Your task to perform on an android device: see sites visited before in the chrome app Image 0: 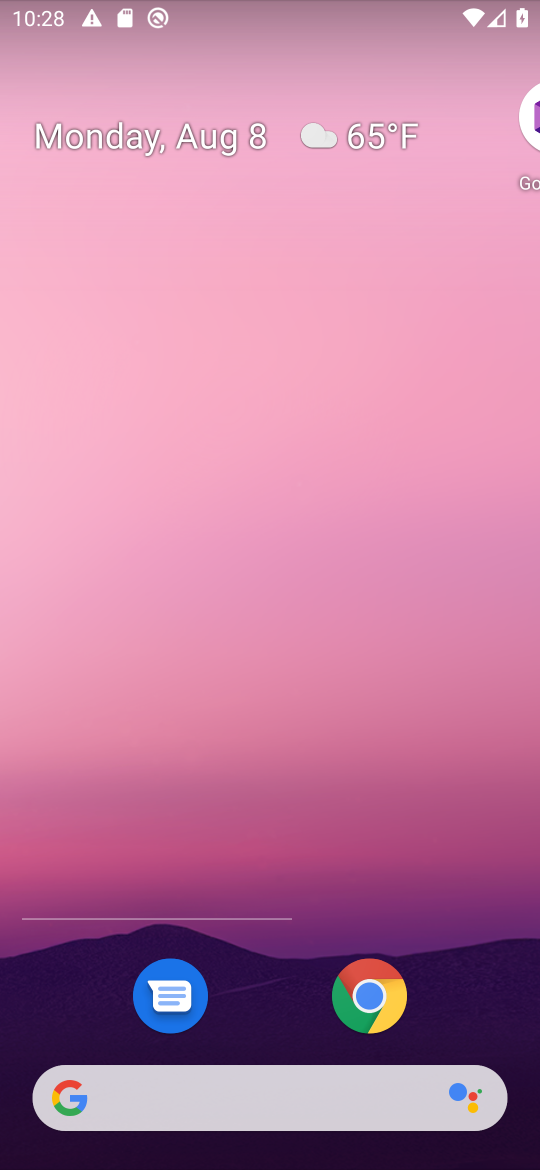
Step 0: press home button
Your task to perform on an android device: see sites visited before in the chrome app Image 1: 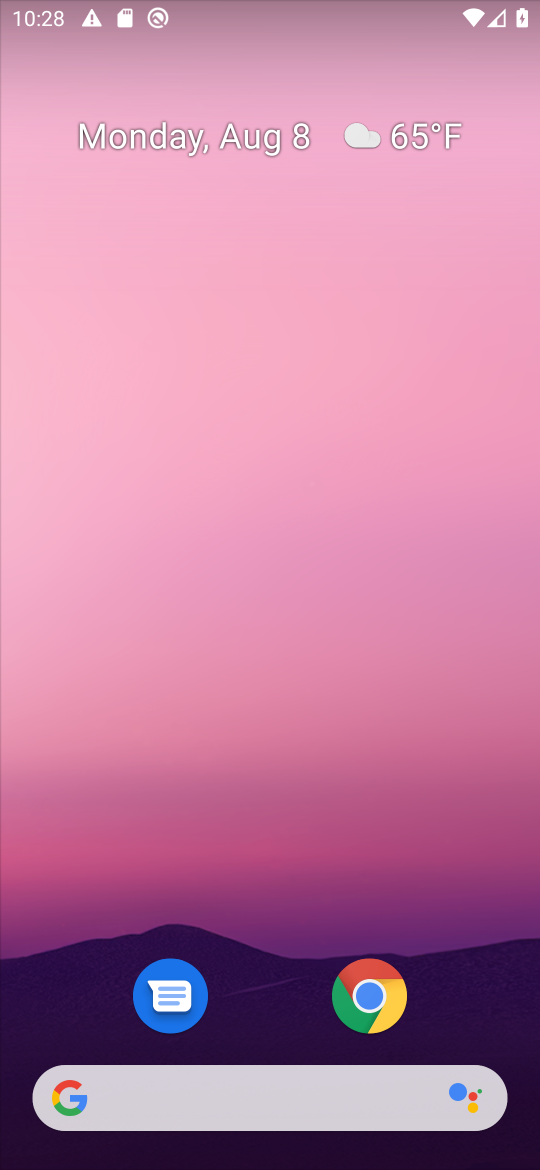
Step 1: drag from (255, 957) to (304, 76)
Your task to perform on an android device: see sites visited before in the chrome app Image 2: 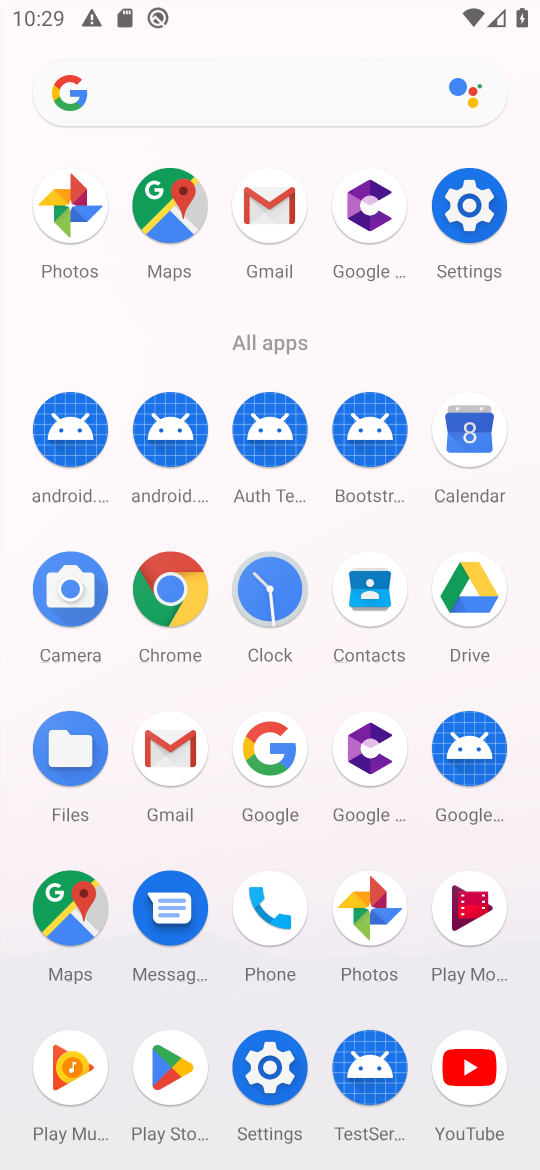
Step 2: click (175, 597)
Your task to perform on an android device: see sites visited before in the chrome app Image 3: 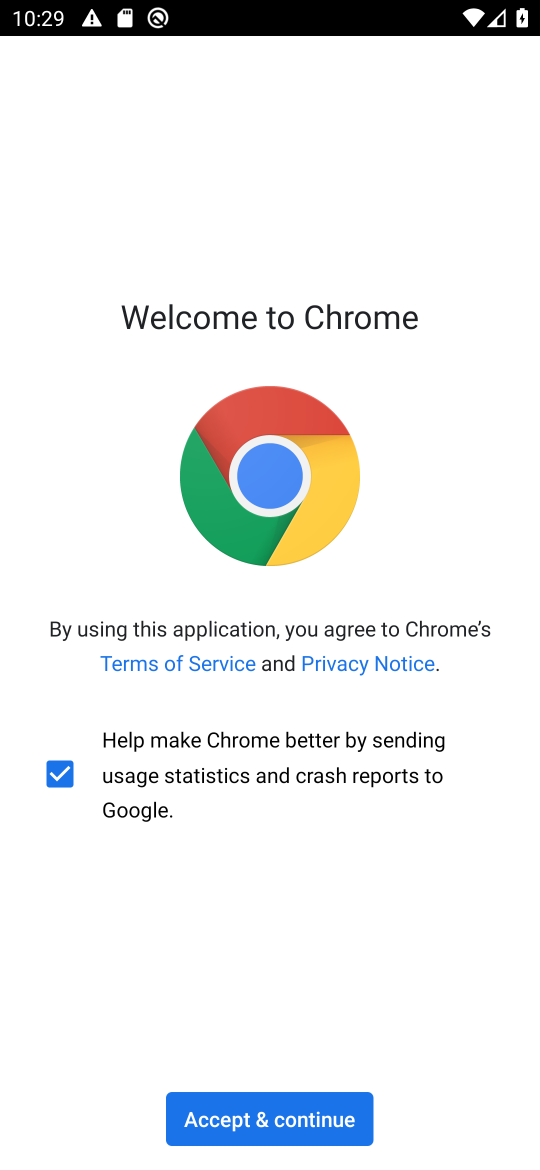
Step 3: click (277, 1129)
Your task to perform on an android device: see sites visited before in the chrome app Image 4: 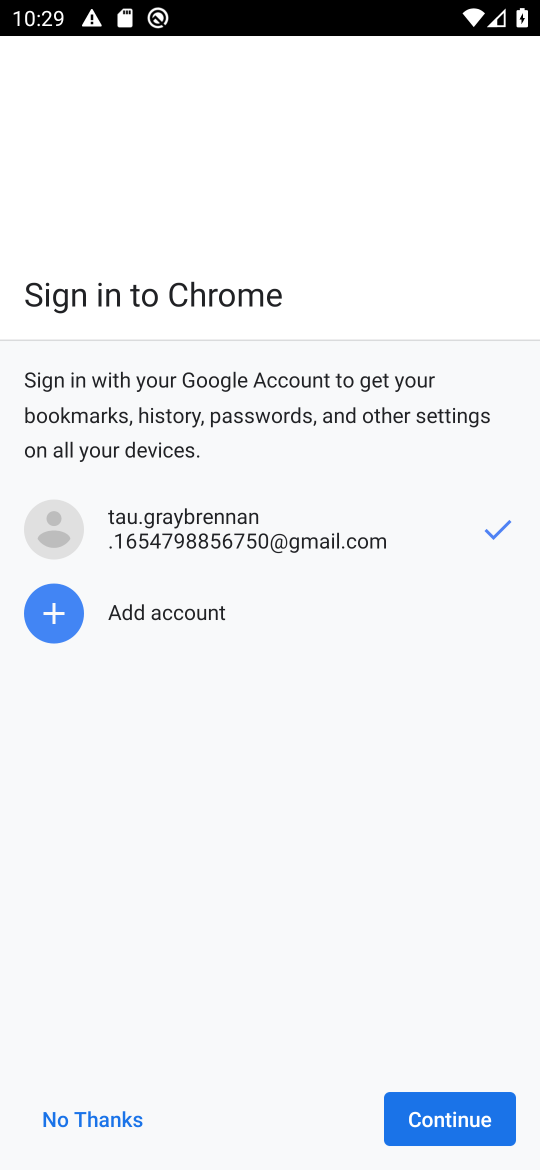
Step 4: click (434, 1136)
Your task to perform on an android device: see sites visited before in the chrome app Image 5: 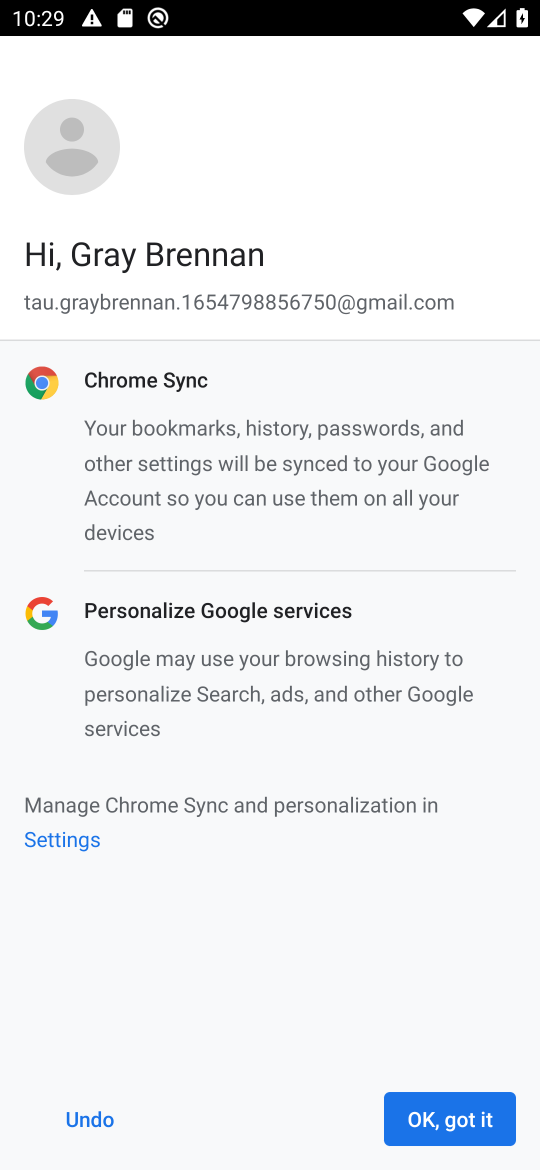
Step 5: click (434, 1136)
Your task to perform on an android device: see sites visited before in the chrome app Image 6: 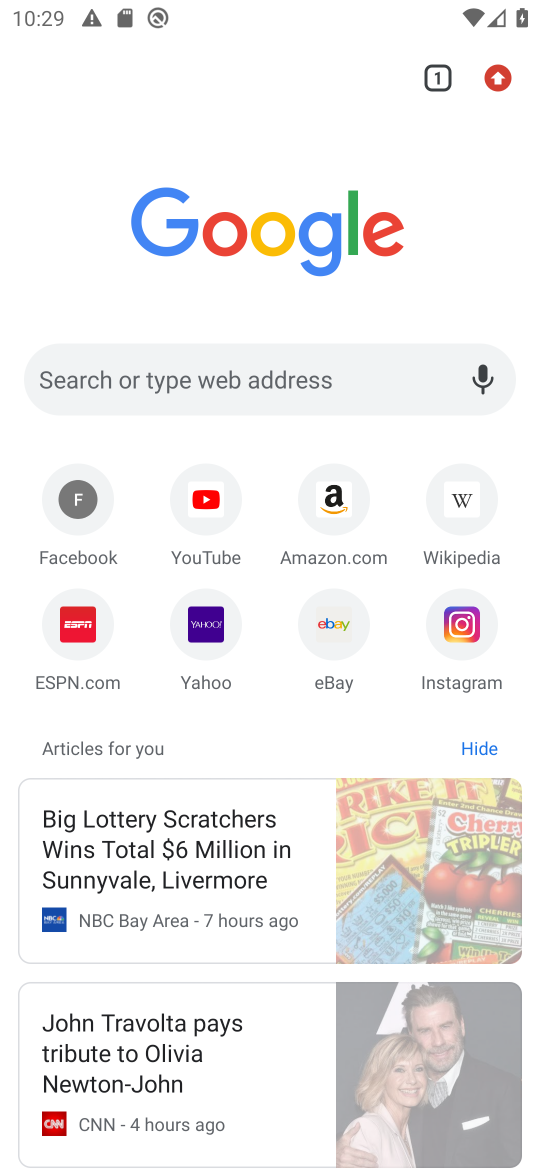
Step 6: task complete